Your task to perform on an android device: star an email in the gmail app Image 0: 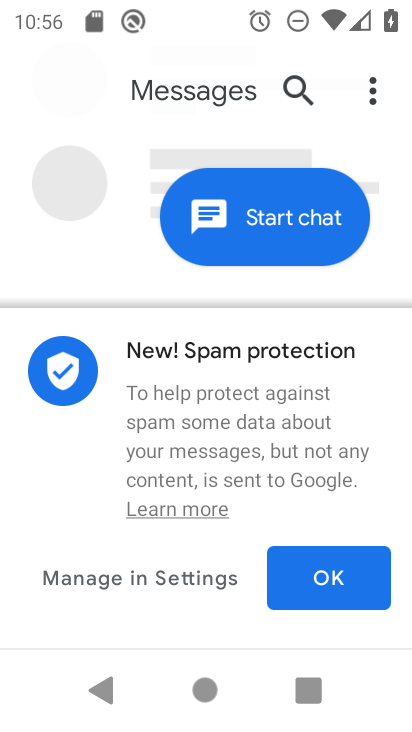
Step 0: press home button
Your task to perform on an android device: star an email in the gmail app Image 1: 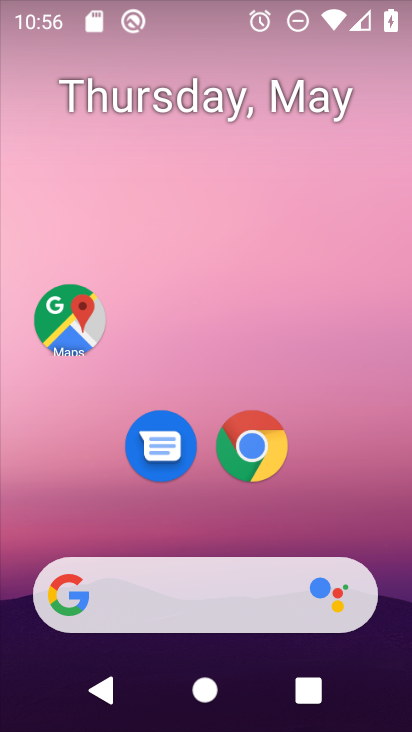
Step 1: drag from (280, 642) to (265, 273)
Your task to perform on an android device: star an email in the gmail app Image 2: 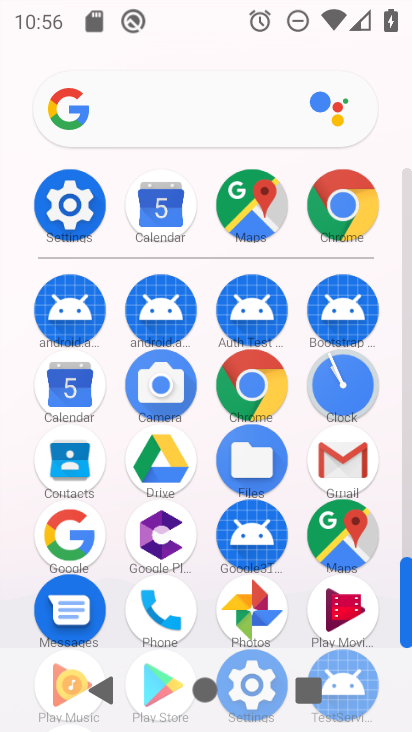
Step 2: click (352, 446)
Your task to perform on an android device: star an email in the gmail app Image 3: 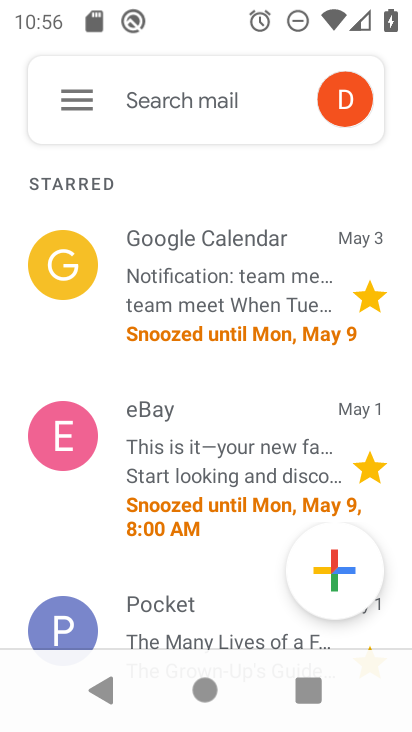
Step 3: click (73, 108)
Your task to perform on an android device: star an email in the gmail app Image 4: 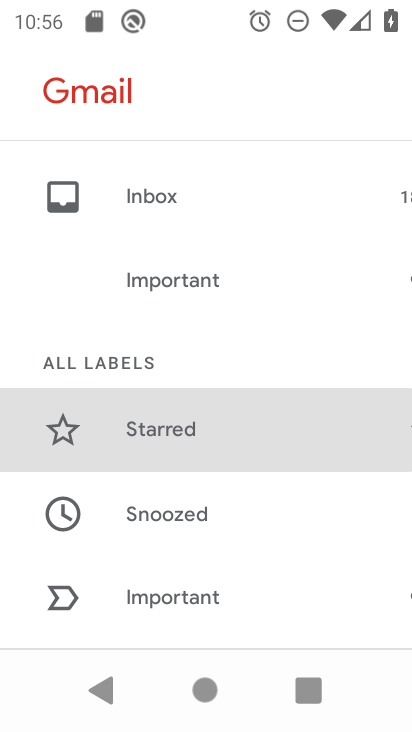
Step 4: click (138, 193)
Your task to perform on an android device: star an email in the gmail app Image 5: 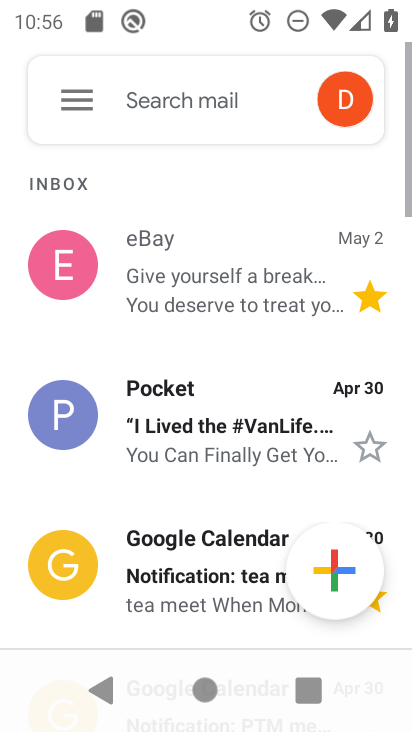
Step 5: click (252, 277)
Your task to perform on an android device: star an email in the gmail app Image 6: 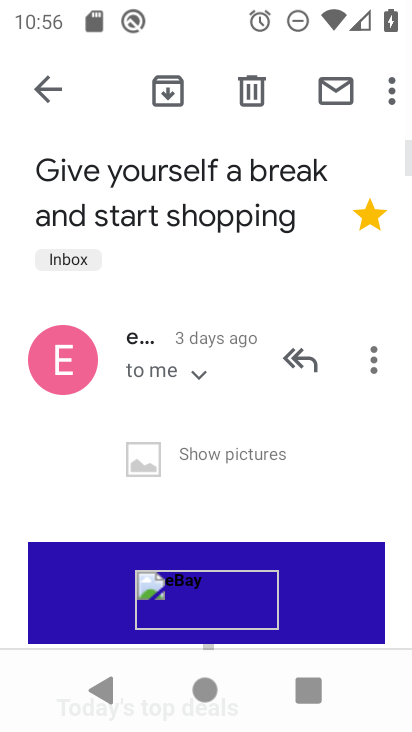
Step 6: click (375, 213)
Your task to perform on an android device: star an email in the gmail app Image 7: 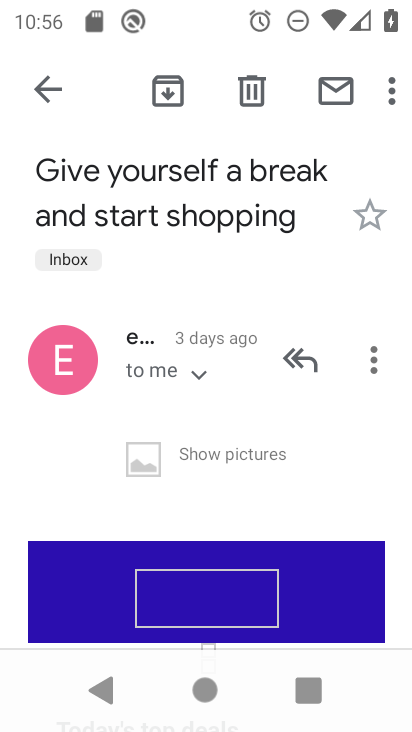
Step 7: click (372, 221)
Your task to perform on an android device: star an email in the gmail app Image 8: 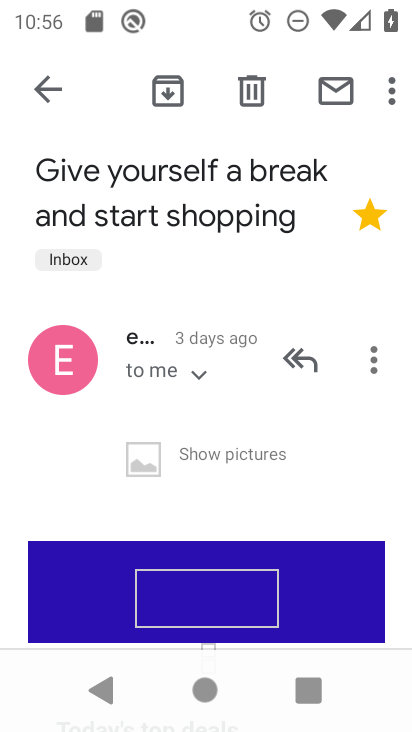
Step 8: task complete